Your task to perform on an android device: change notifications settings Image 0: 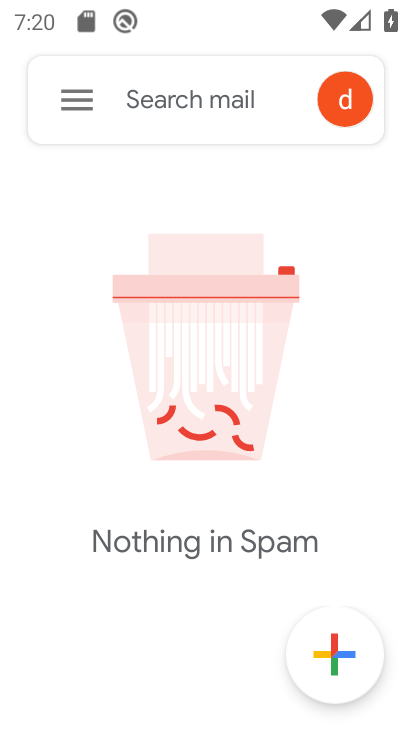
Step 0: press home button
Your task to perform on an android device: change notifications settings Image 1: 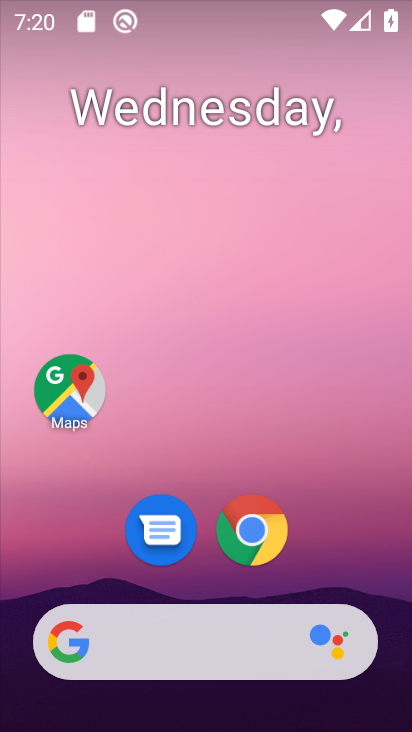
Step 1: drag from (383, 646) to (338, 94)
Your task to perform on an android device: change notifications settings Image 2: 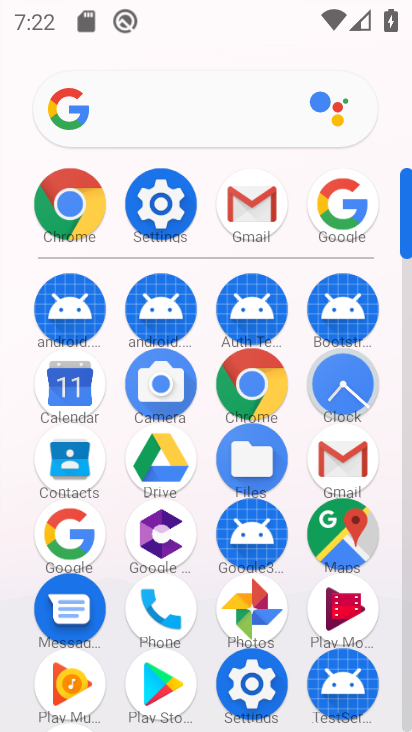
Step 2: click (226, 681)
Your task to perform on an android device: change notifications settings Image 3: 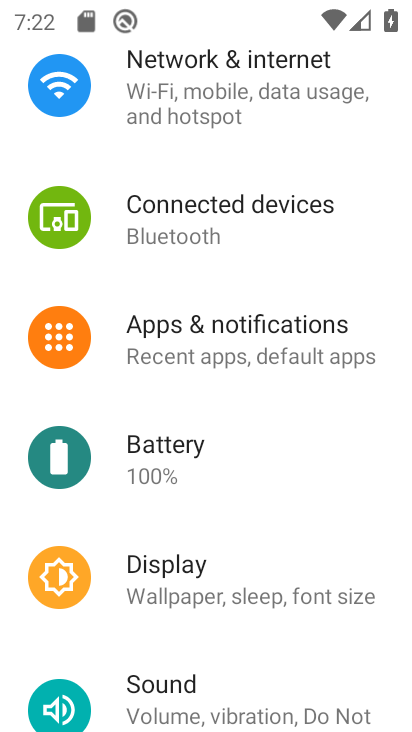
Step 3: click (231, 337)
Your task to perform on an android device: change notifications settings Image 4: 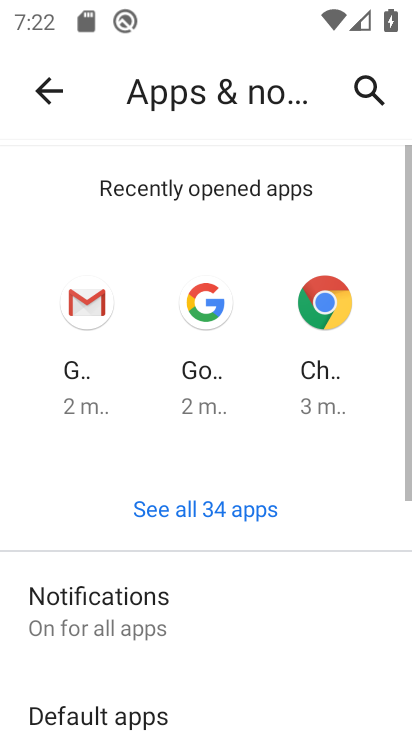
Step 4: click (174, 617)
Your task to perform on an android device: change notifications settings Image 5: 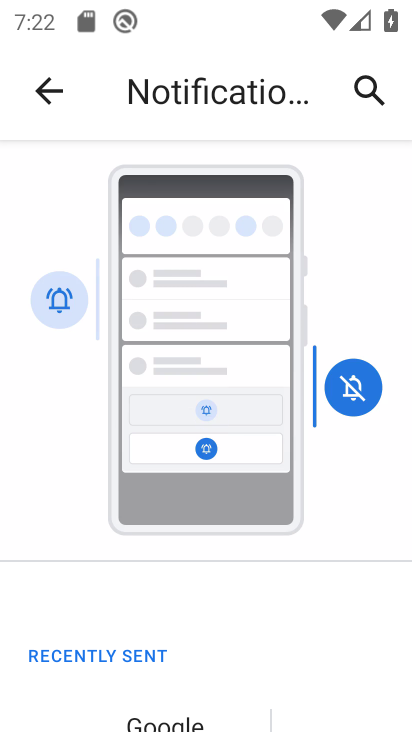
Step 5: task complete